Your task to perform on an android device: move an email to a new category in the gmail app Image 0: 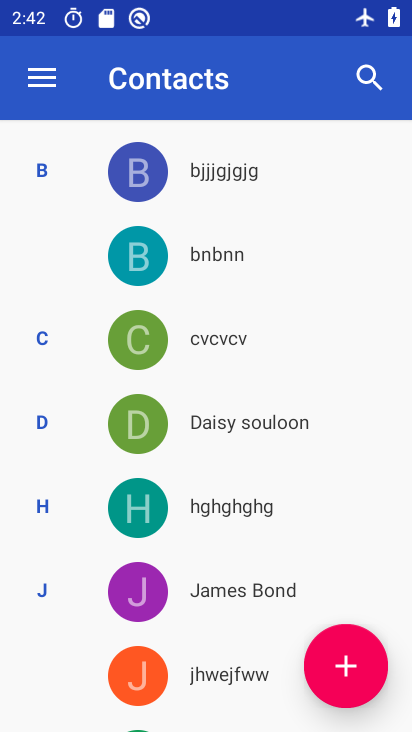
Step 0: press home button
Your task to perform on an android device: move an email to a new category in the gmail app Image 1: 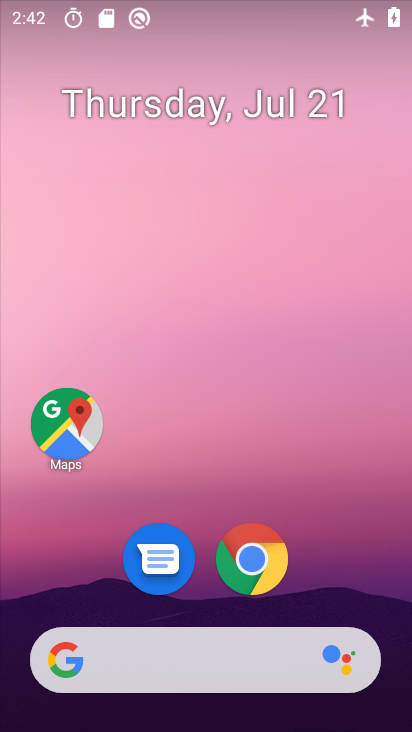
Step 1: drag from (369, 571) to (382, 98)
Your task to perform on an android device: move an email to a new category in the gmail app Image 2: 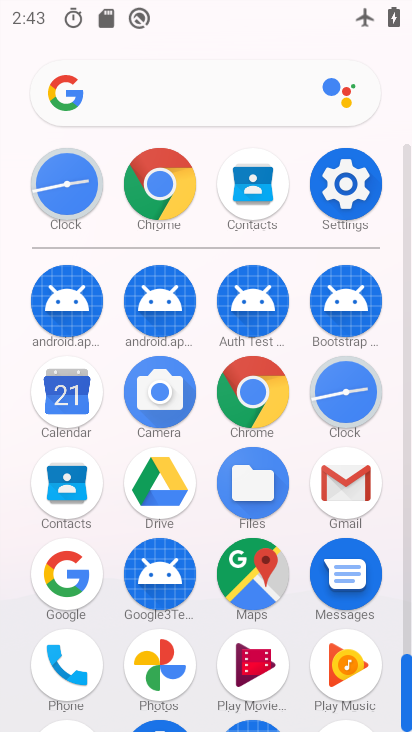
Step 2: click (345, 493)
Your task to perform on an android device: move an email to a new category in the gmail app Image 3: 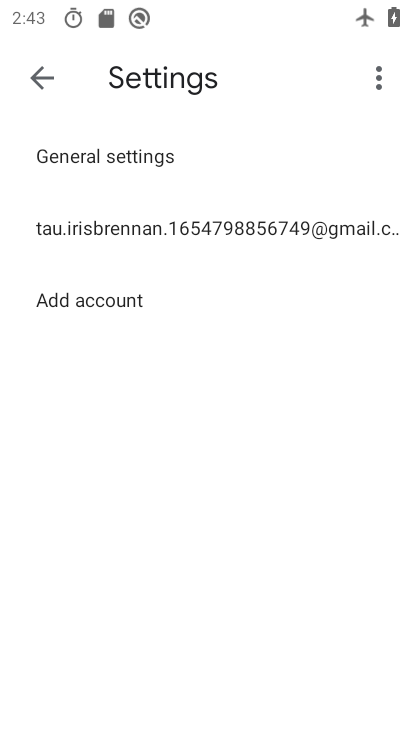
Step 3: task complete